Your task to perform on an android device: turn on data saver in the chrome app Image 0: 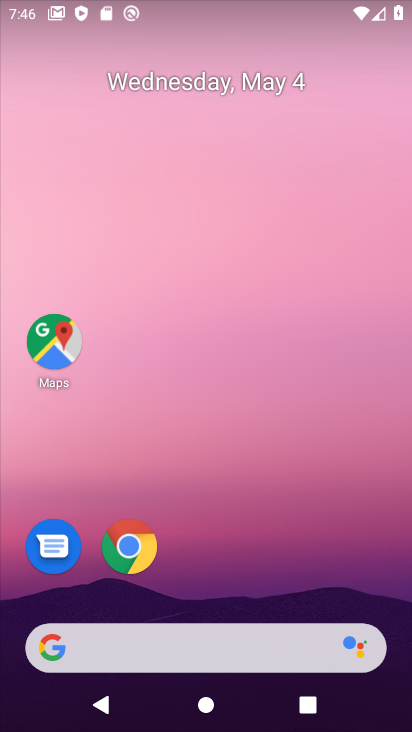
Step 0: click (131, 547)
Your task to perform on an android device: turn on data saver in the chrome app Image 1: 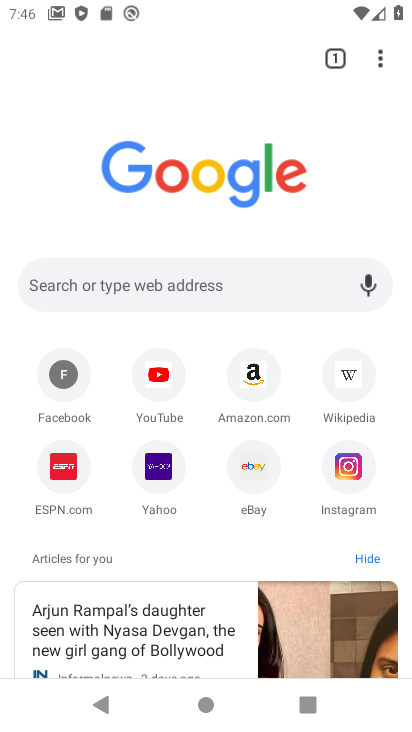
Step 1: click (383, 63)
Your task to perform on an android device: turn on data saver in the chrome app Image 2: 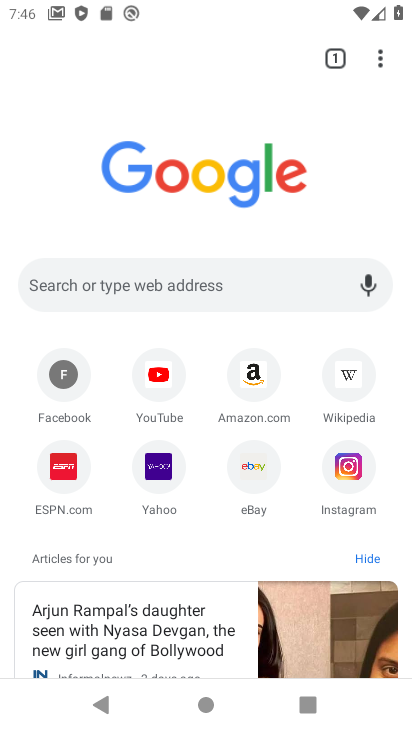
Step 2: click (383, 63)
Your task to perform on an android device: turn on data saver in the chrome app Image 3: 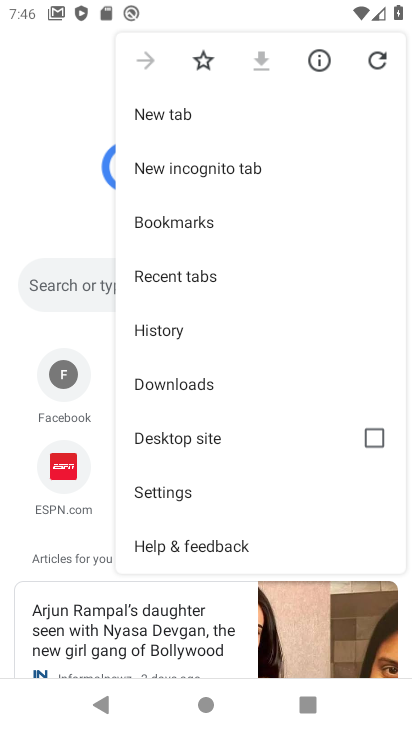
Step 3: click (175, 496)
Your task to perform on an android device: turn on data saver in the chrome app Image 4: 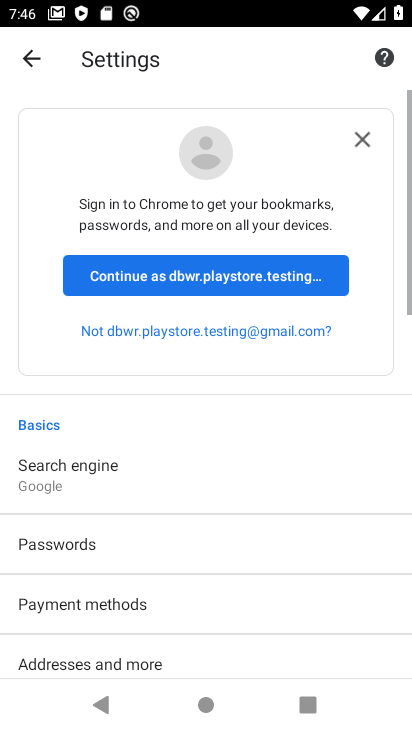
Step 4: drag from (251, 612) to (253, 172)
Your task to perform on an android device: turn on data saver in the chrome app Image 5: 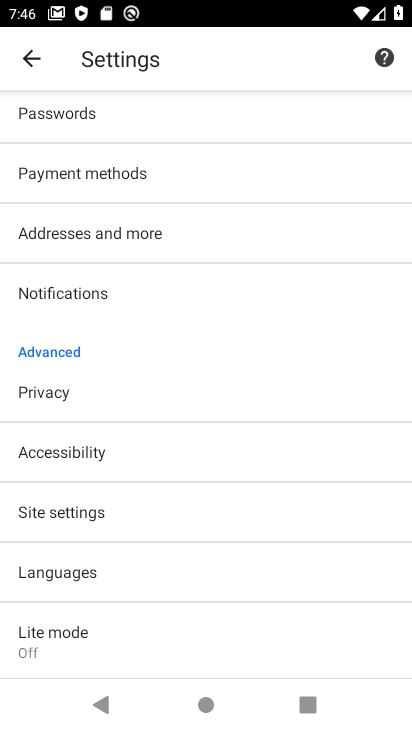
Step 5: drag from (240, 572) to (242, 324)
Your task to perform on an android device: turn on data saver in the chrome app Image 6: 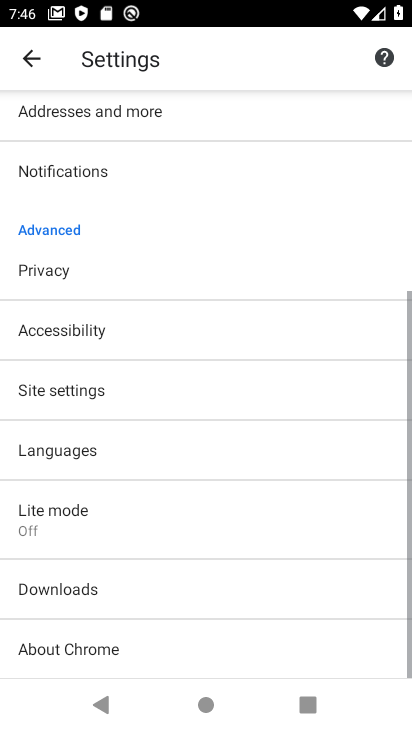
Step 6: click (46, 517)
Your task to perform on an android device: turn on data saver in the chrome app Image 7: 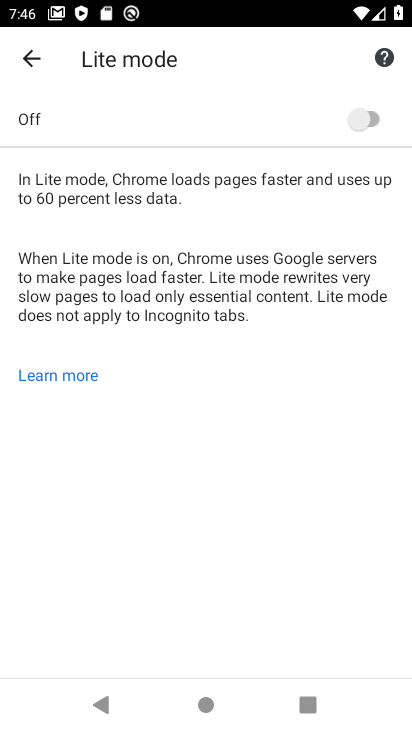
Step 7: click (365, 114)
Your task to perform on an android device: turn on data saver in the chrome app Image 8: 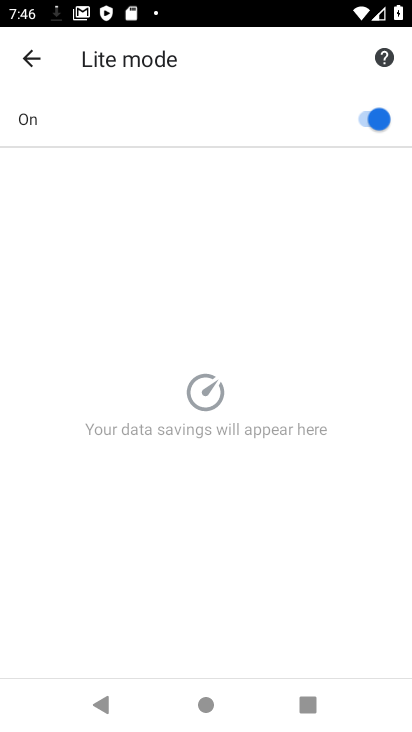
Step 8: task complete